Your task to perform on an android device: Open Wikipedia Image 0: 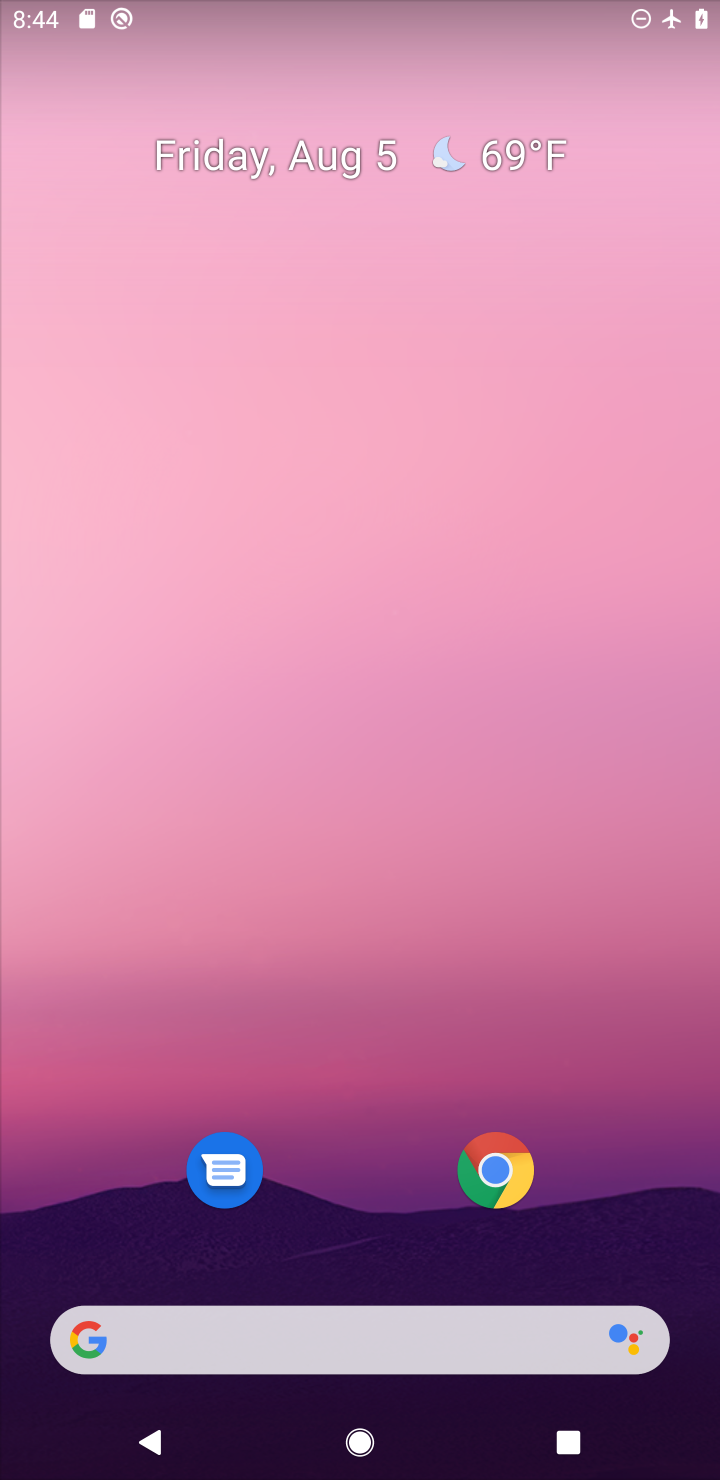
Step 0: click (497, 1172)
Your task to perform on an android device: Open Wikipedia Image 1: 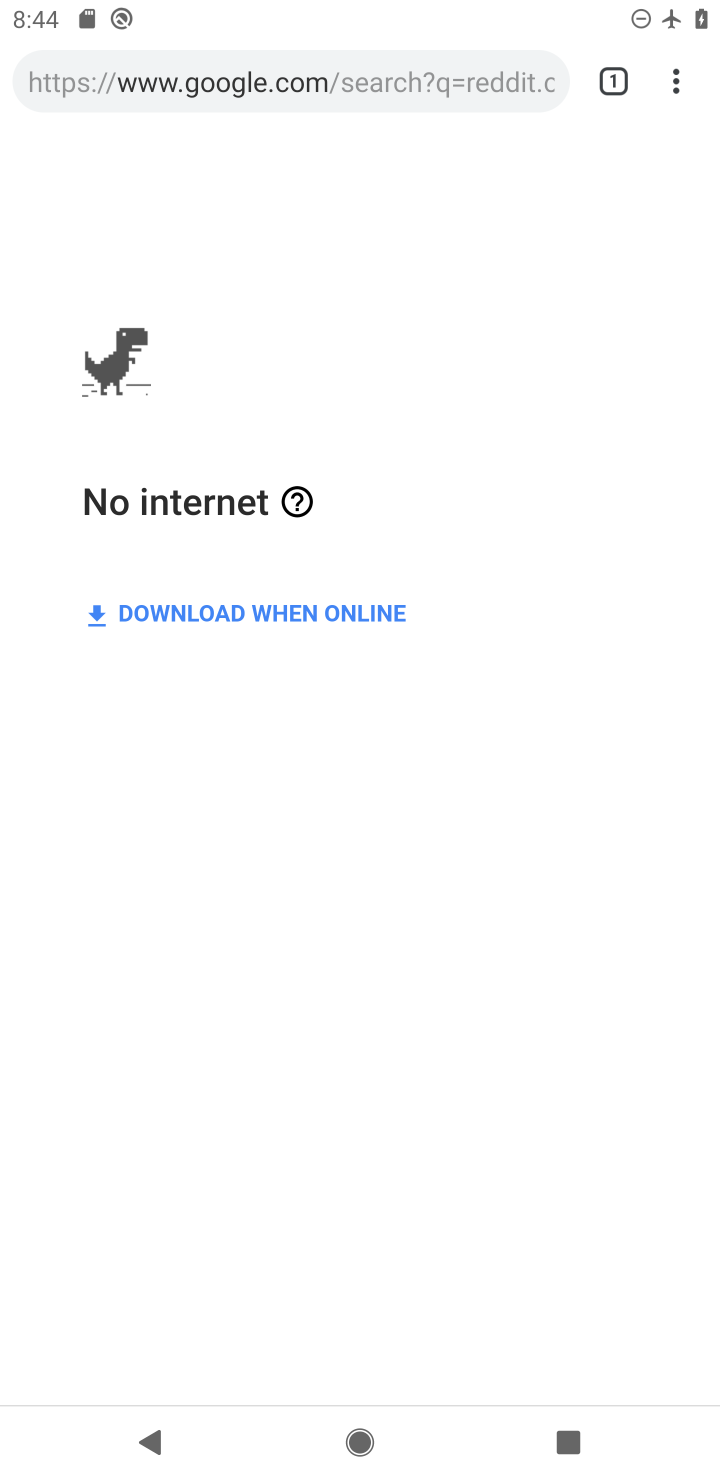
Step 1: click (387, 74)
Your task to perform on an android device: Open Wikipedia Image 2: 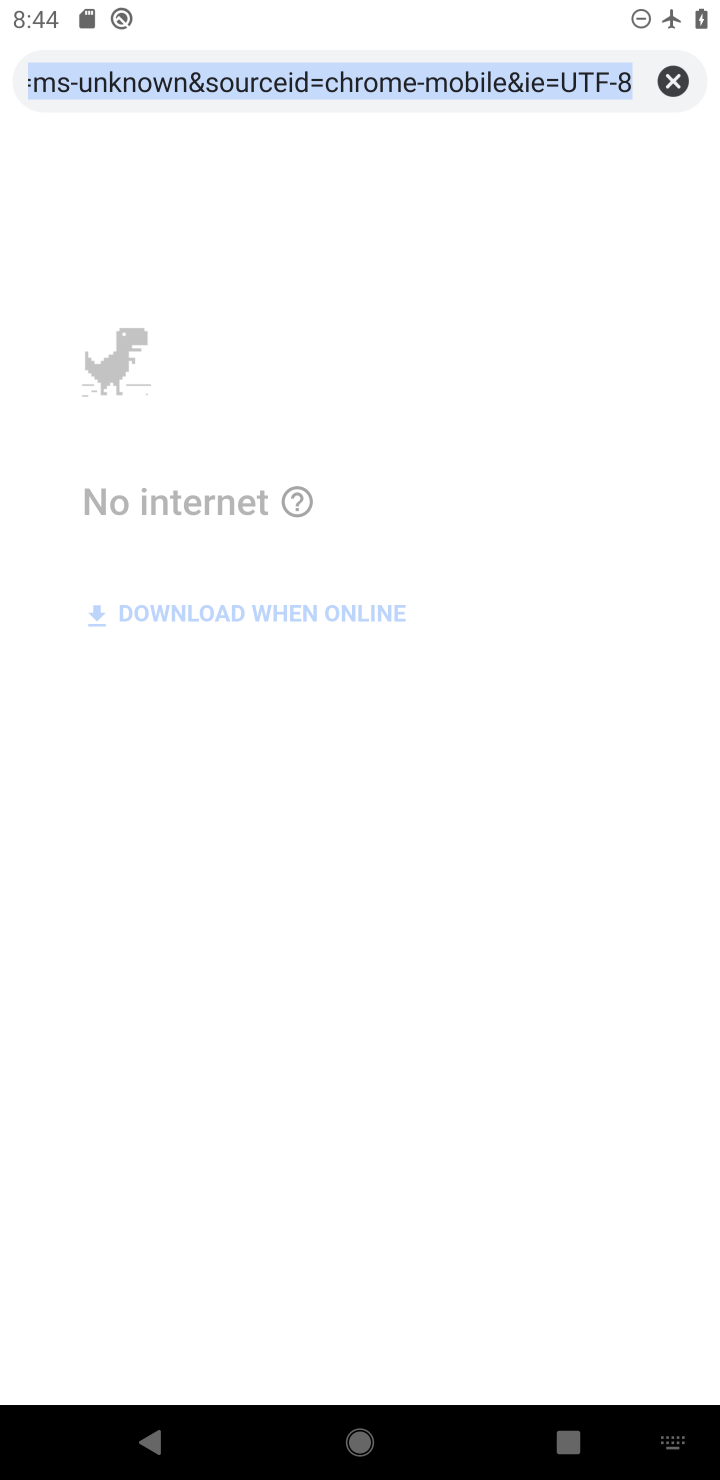
Step 2: click (671, 75)
Your task to perform on an android device: Open Wikipedia Image 3: 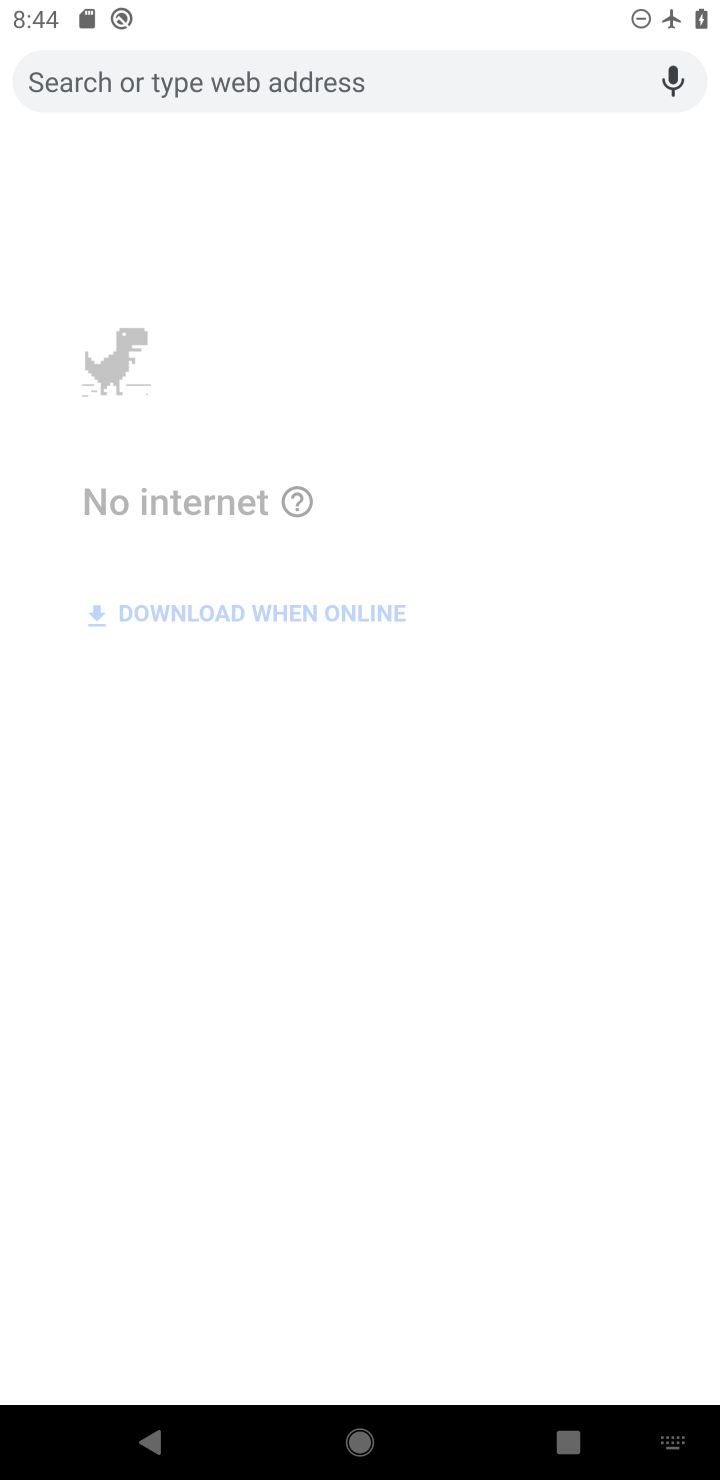
Step 3: type "wikipedia"
Your task to perform on an android device: Open Wikipedia Image 4: 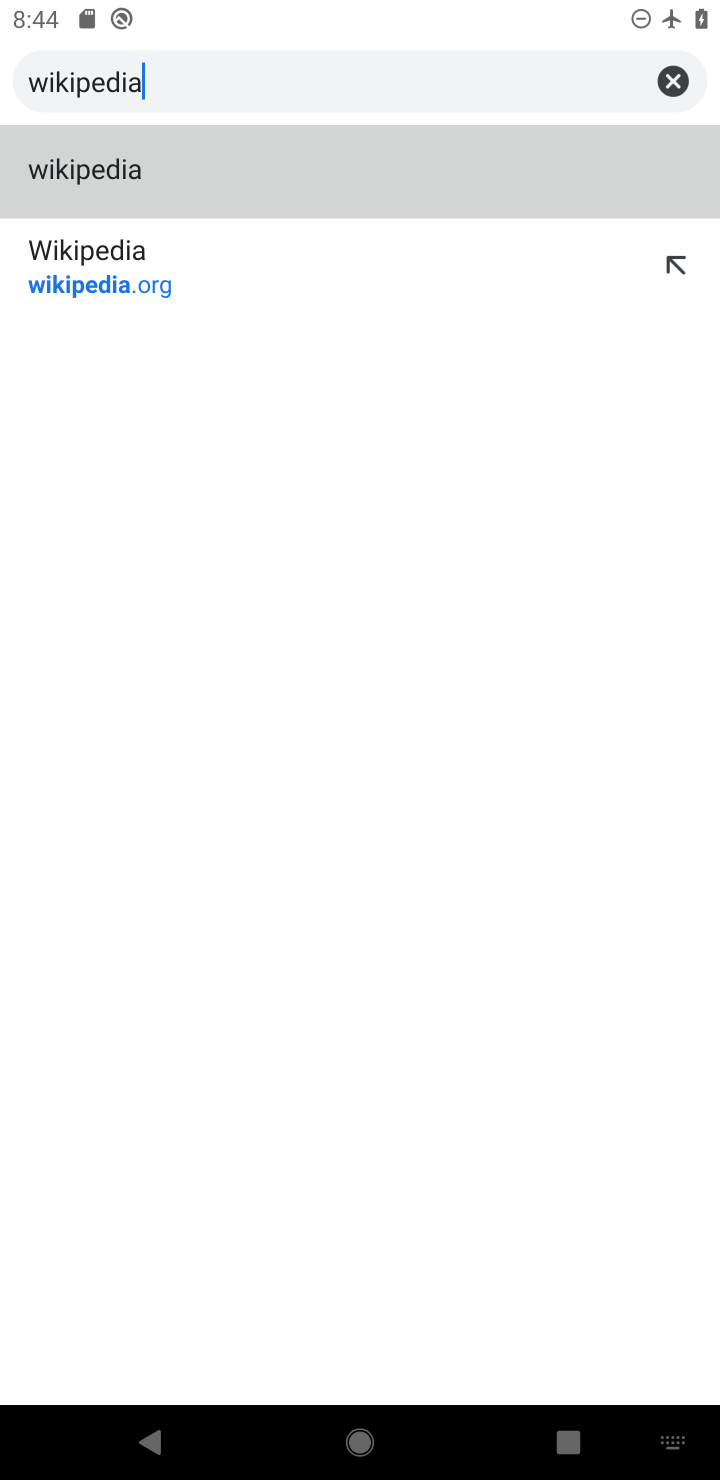
Step 4: click (108, 265)
Your task to perform on an android device: Open Wikipedia Image 5: 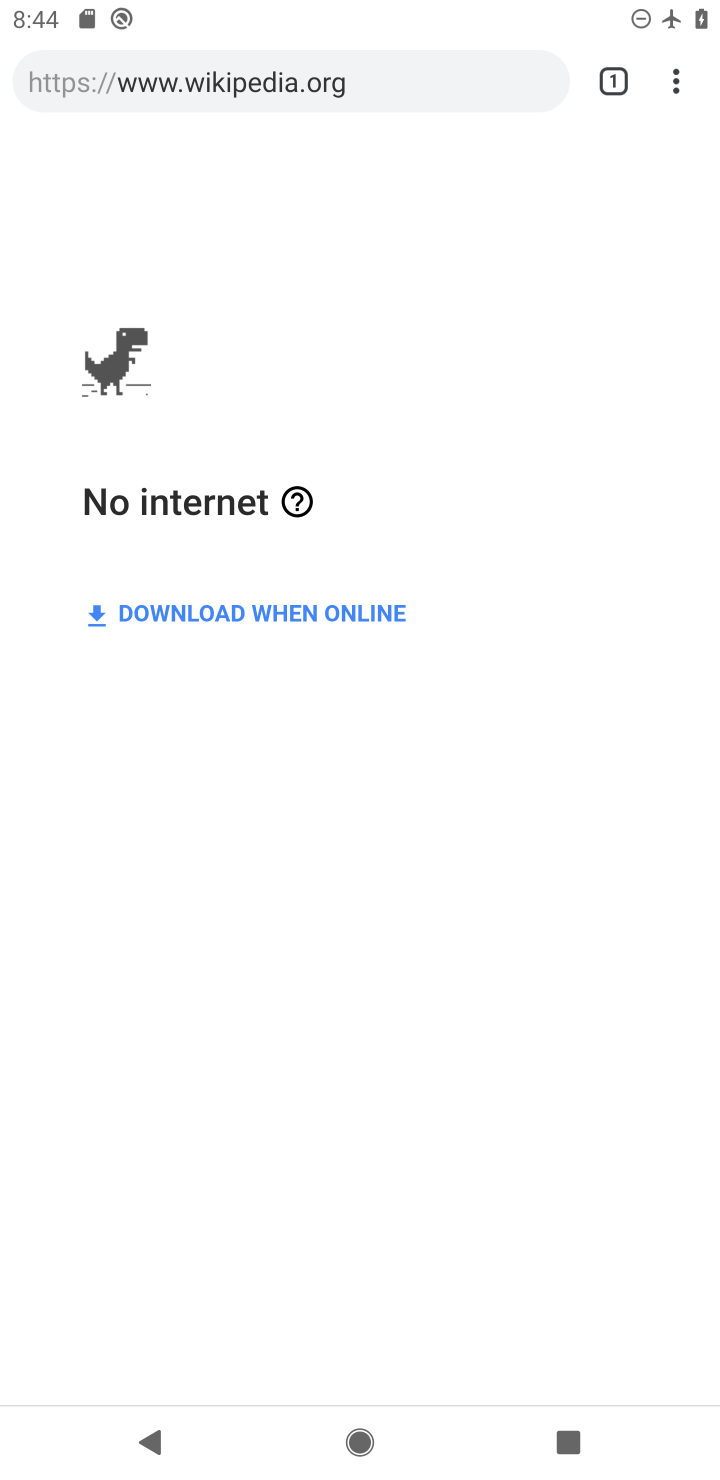
Step 5: task complete